Your task to perform on an android device: Open CNN.com Image 0: 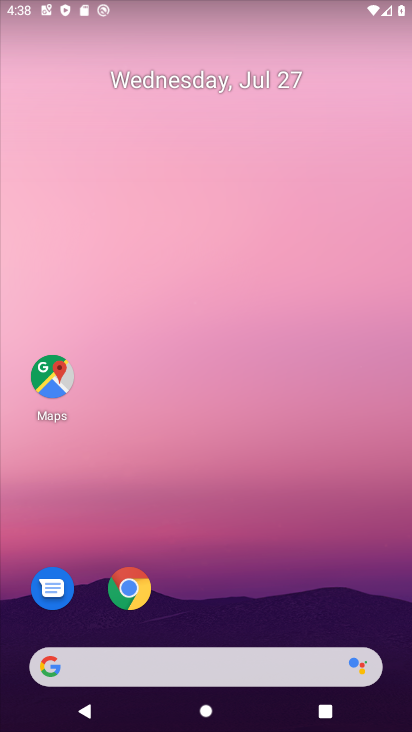
Step 0: drag from (241, 727) to (250, 276)
Your task to perform on an android device: Open CNN.com Image 1: 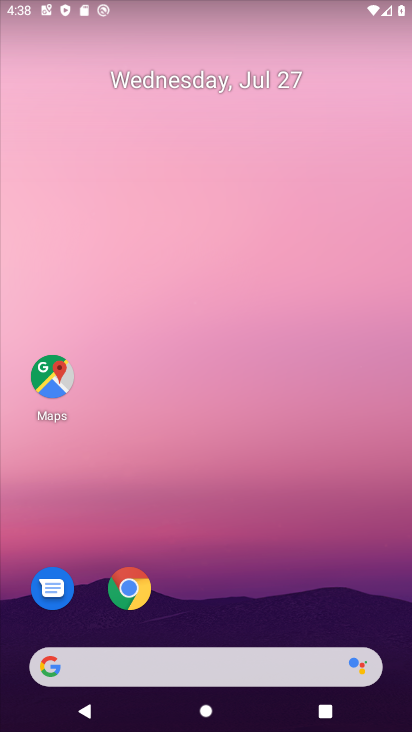
Step 1: click (129, 591)
Your task to perform on an android device: Open CNN.com Image 2: 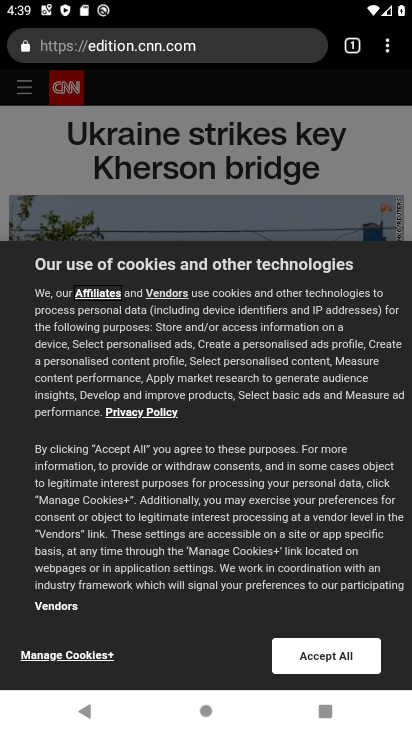
Step 2: task complete